Your task to perform on an android device: toggle javascript in the chrome app Image 0: 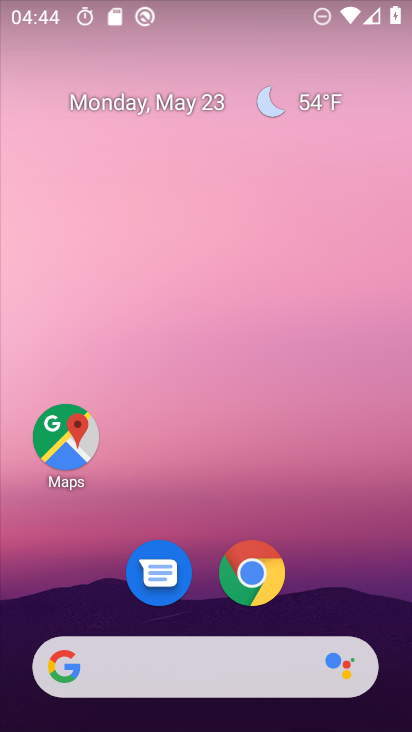
Step 0: click (268, 577)
Your task to perform on an android device: toggle javascript in the chrome app Image 1: 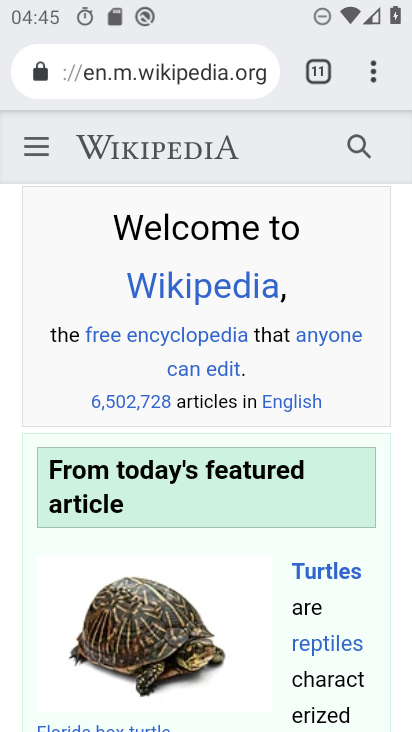
Step 1: click (376, 73)
Your task to perform on an android device: toggle javascript in the chrome app Image 2: 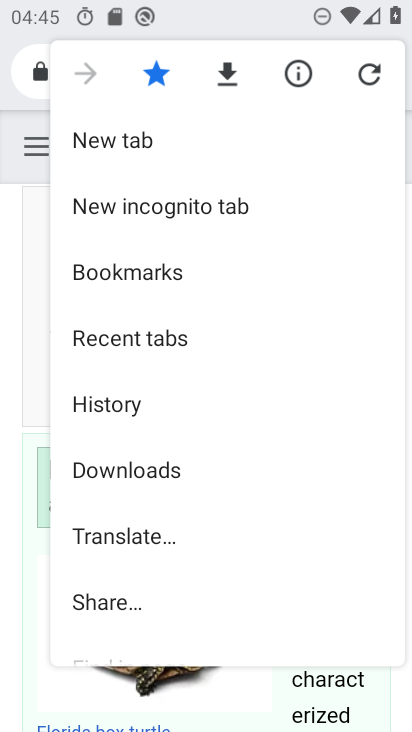
Step 2: drag from (223, 544) to (191, 233)
Your task to perform on an android device: toggle javascript in the chrome app Image 3: 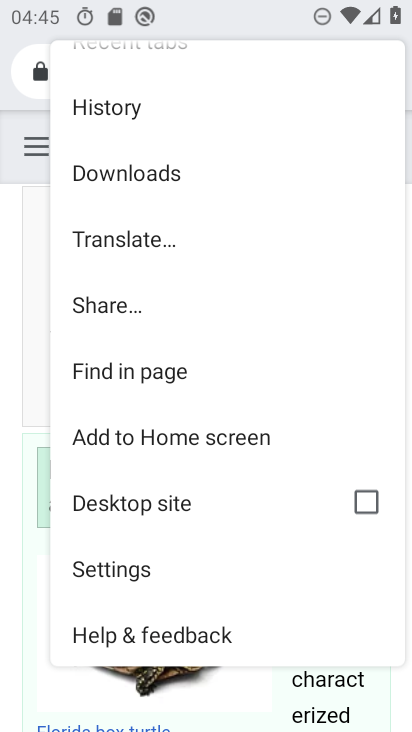
Step 3: click (128, 567)
Your task to perform on an android device: toggle javascript in the chrome app Image 4: 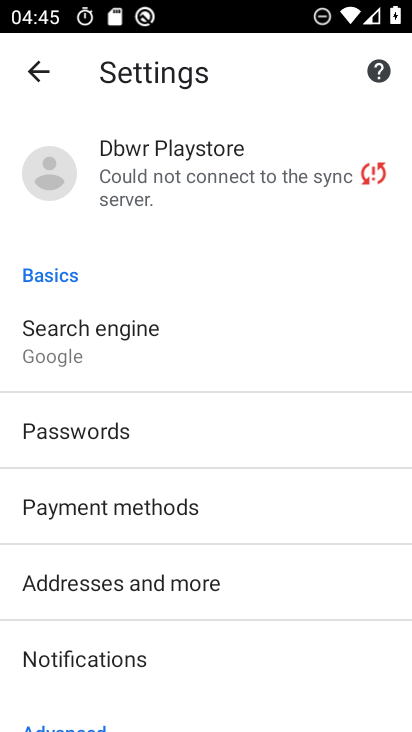
Step 4: drag from (258, 570) to (240, 273)
Your task to perform on an android device: toggle javascript in the chrome app Image 5: 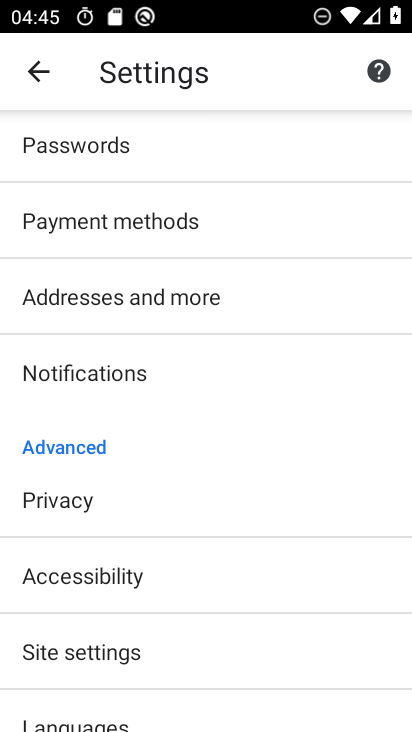
Step 5: click (158, 652)
Your task to perform on an android device: toggle javascript in the chrome app Image 6: 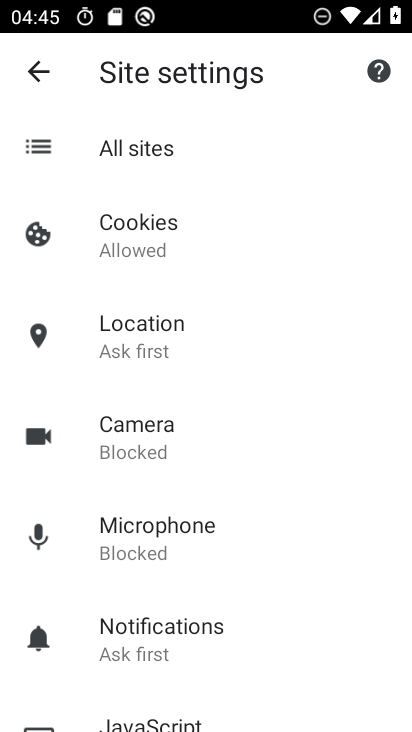
Step 6: drag from (264, 669) to (230, 296)
Your task to perform on an android device: toggle javascript in the chrome app Image 7: 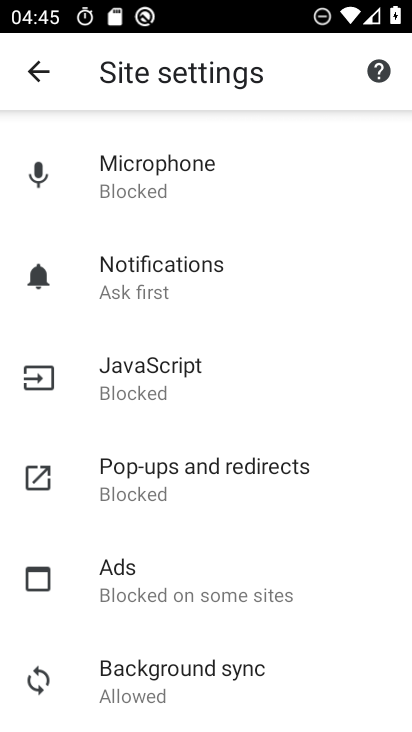
Step 7: click (157, 380)
Your task to perform on an android device: toggle javascript in the chrome app Image 8: 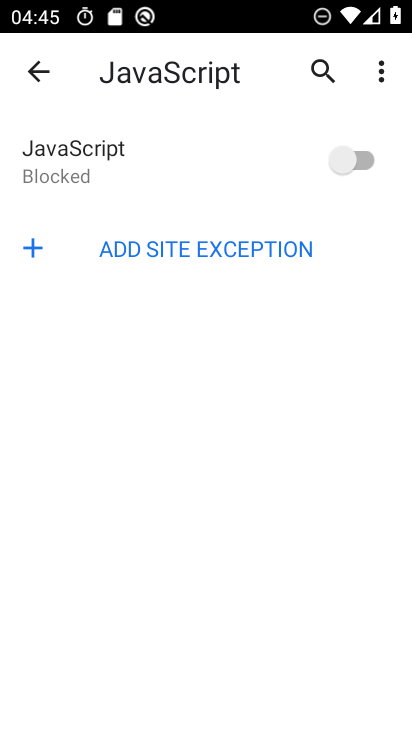
Step 8: click (367, 157)
Your task to perform on an android device: toggle javascript in the chrome app Image 9: 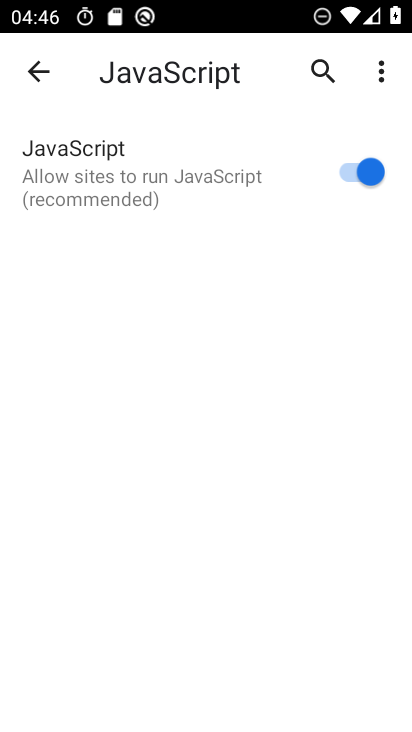
Step 9: task complete